Your task to perform on an android device: Open Google Chrome and open the bookmarks view Image 0: 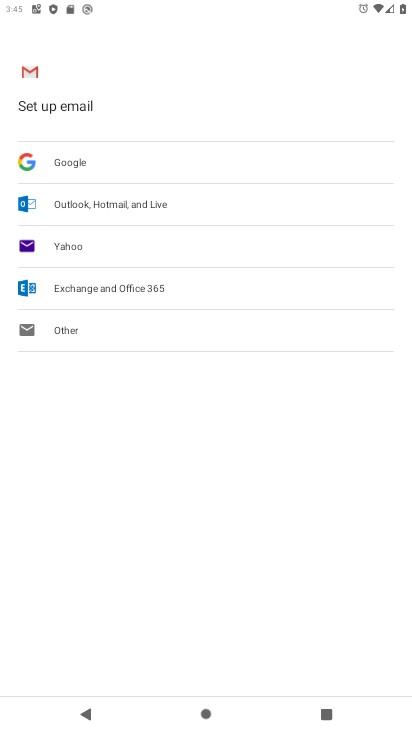
Step 0: press home button
Your task to perform on an android device: Open Google Chrome and open the bookmarks view Image 1: 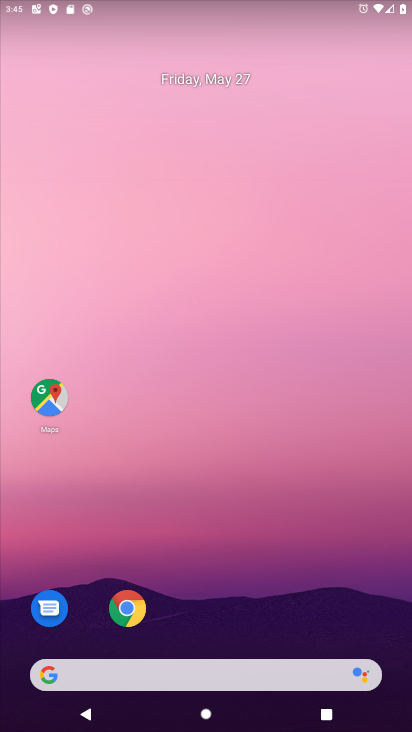
Step 1: click (131, 613)
Your task to perform on an android device: Open Google Chrome and open the bookmarks view Image 2: 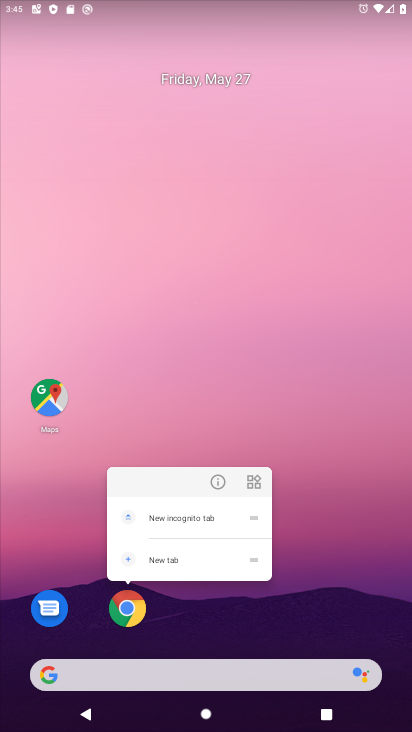
Step 2: click (131, 611)
Your task to perform on an android device: Open Google Chrome and open the bookmarks view Image 3: 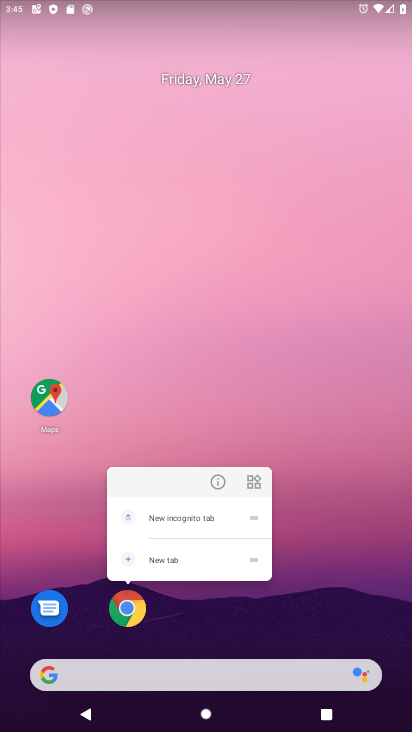
Step 3: click (127, 606)
Your task to perform on an android device: Open Google Chrome and open the bookmarks view Image 4: 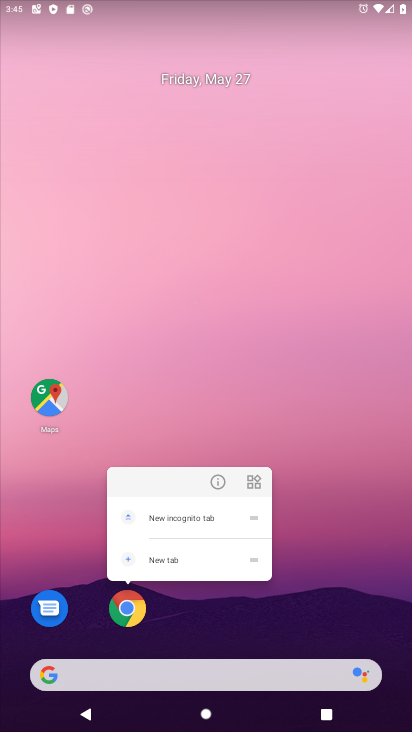
Step 4: click (132, 618)
Your task to perform on an android device: Open Google Chrome and open the bookmarks view Image 5: 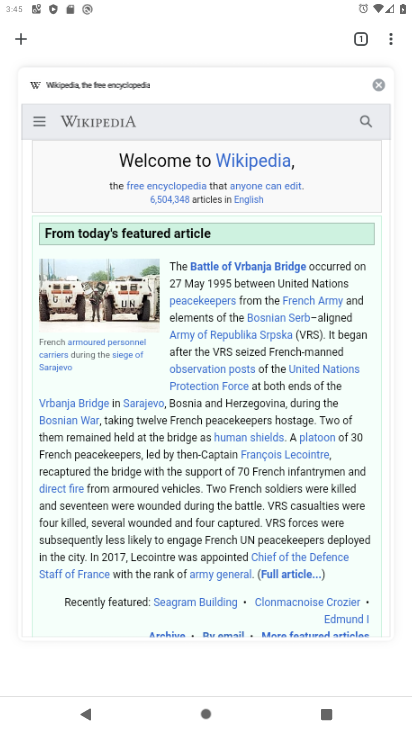
Step 5: click (391, 46)
Your task to perform on an android device: Open Google Chrome and open the bookmarks view Image 6: 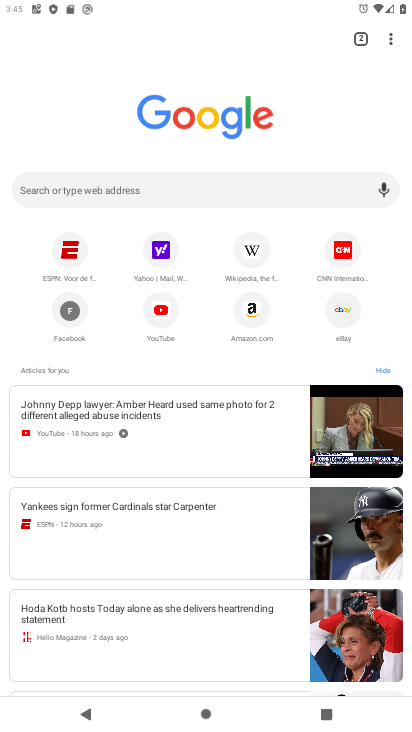
Step 6: click (392, 40)
Your task to perform on an android device: Open Google Chrome and open the bookmarks view Image 7: 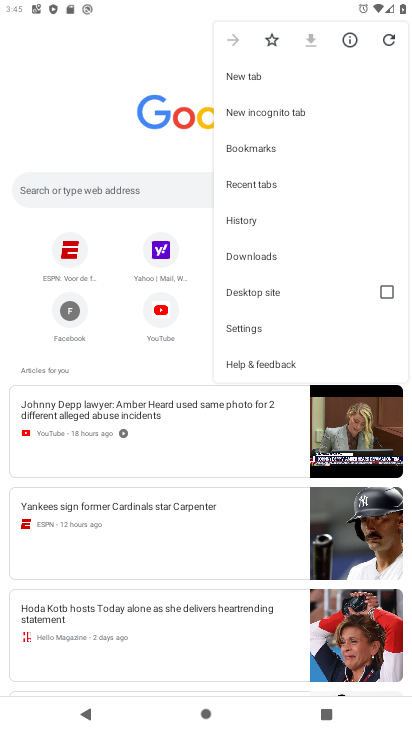
Step 7: click (251, 154)
Your task to perform on an android device: Open Google Chrome and open the bookmarks view Image 8: 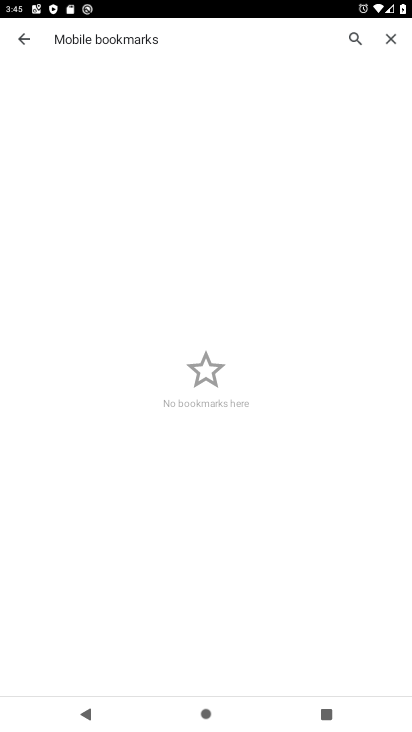
Step 8: task complete